Your task to perform on an android device: Go to ESPN.com Image 0: 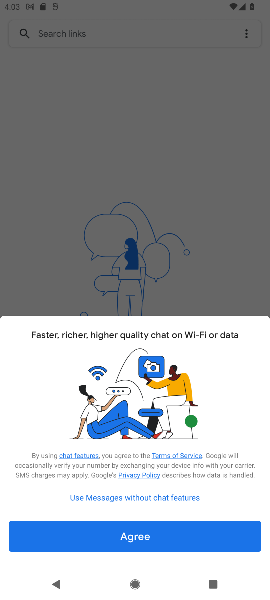
Step 0: press home button
Your task to perform on an android device: Go to ESPN.com Image 1: 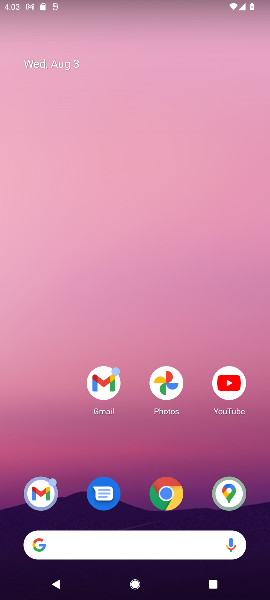
Step 1: drag from (28, 443) to (58, 122)
Your task to perform on an android device: Go to ESPN.com Image 2: 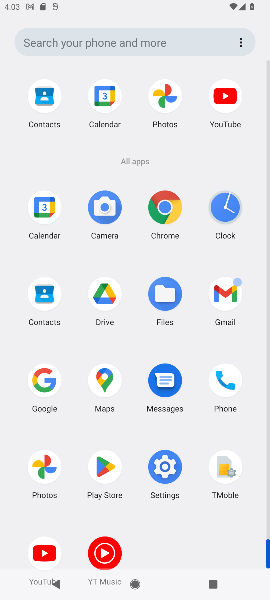
Step 2: click (167, 214)
Your task to perform on an android device: Go to ESPN.com Image 3: 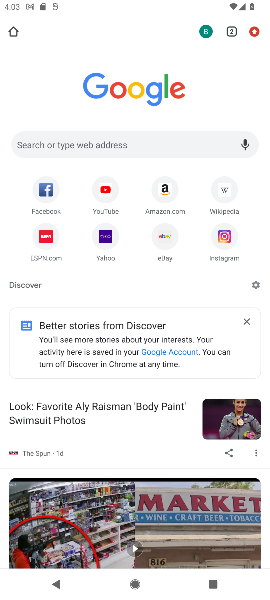
Step 3: click (171, 141)
Your task to perform on an android device: Go to ESPN.com Image 4: 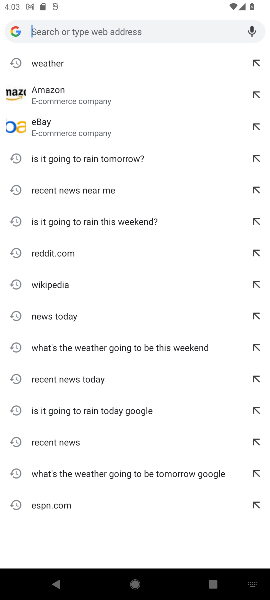
Step 4: type "espn.com"
Your task to perform on an android device: Go to ESPN.com Image 5: 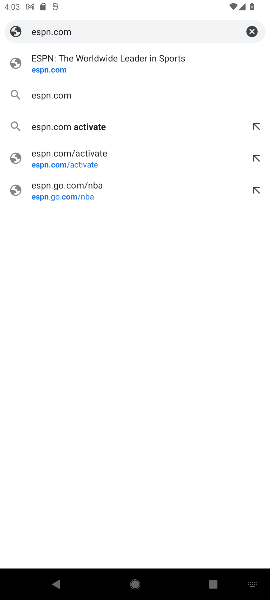
Step 5: click (81, 60)
Your task to perform on an android device: Go to ESPN.com Image 6: 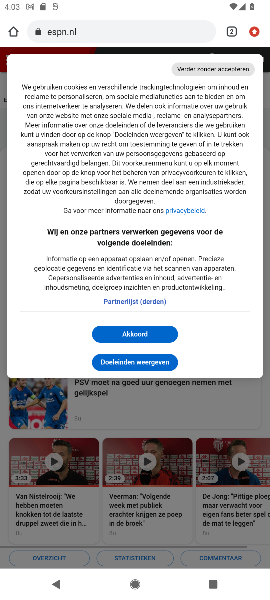
Step 6: task complete